Your task to perform on an android device: see sites visited before in the chrome app Image 0: 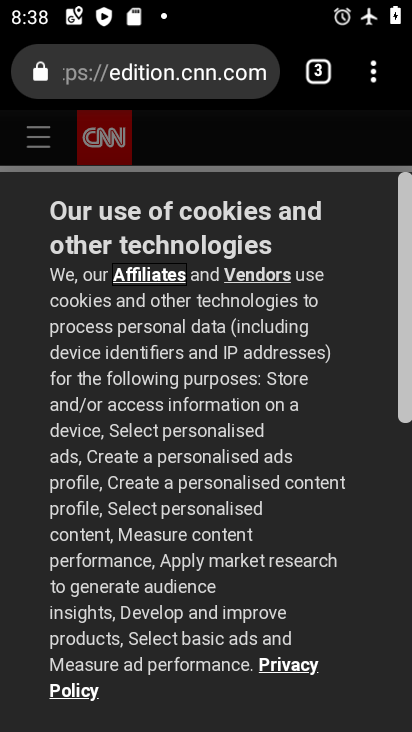
Step 0: press home button
Your task to perform on an android device: see sites visited before in the chrome app Image 1: 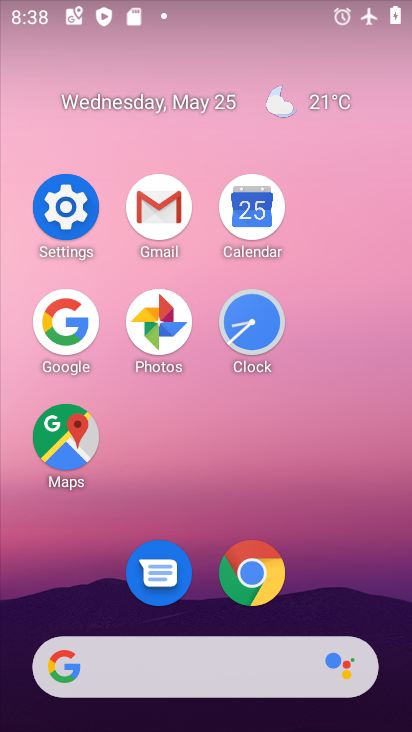
Step 1: click (271, 581)
Your task to perform on an android device: see sites visited before in the chrome app Image 2: 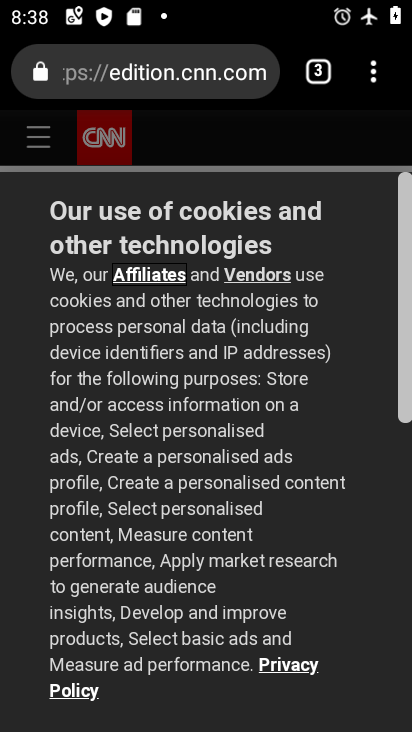
Step 2: click (378, 83)
Your task to perform on an android device: see sites visited before in the chrome app Image 3: 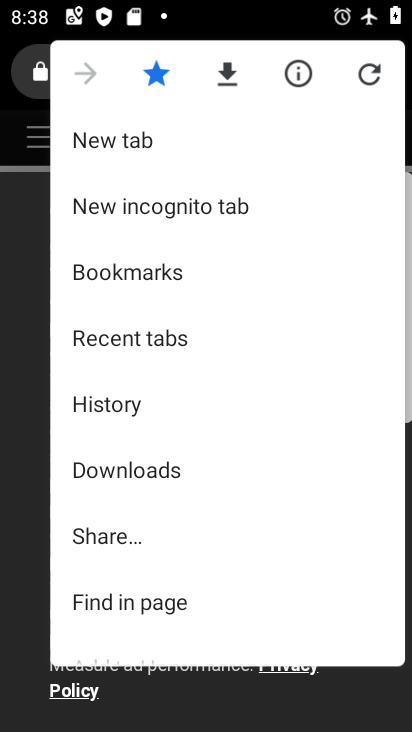
Step 3: drag from (193, 452) to (239, 244)
Your task to perform on an android device: see sites visited before in the chrome app Image 4: 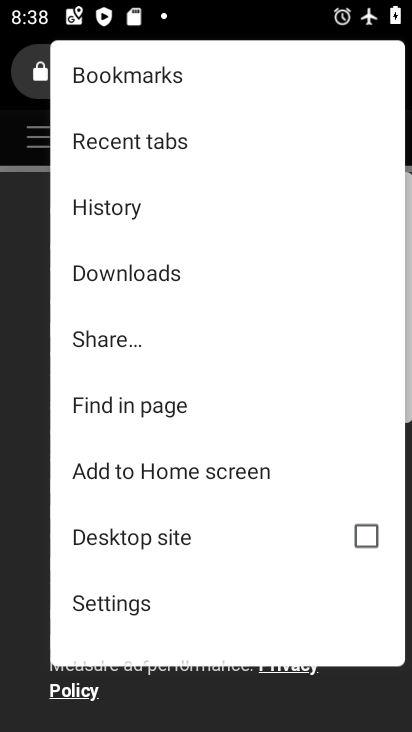
Step 4: click (219, 165)
Your task to perform on an android device: see sites visited before in the chrome app Image 5: 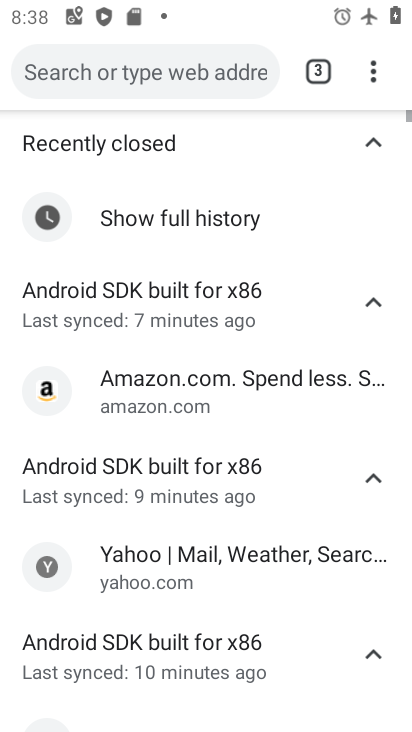
Step 5: click (116, 136)
Your task to perform on an android device: see sites visited before in the chrome app Image 6: 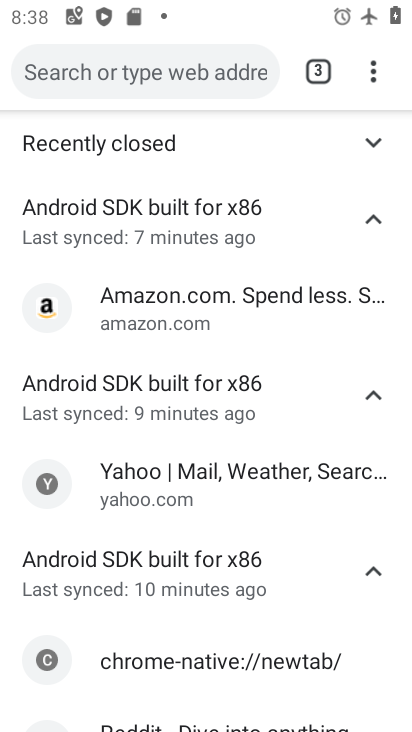
Step 6: click (116, 136)
Your task to perform on an android device: see sites visited before in the chrome app Image 7: 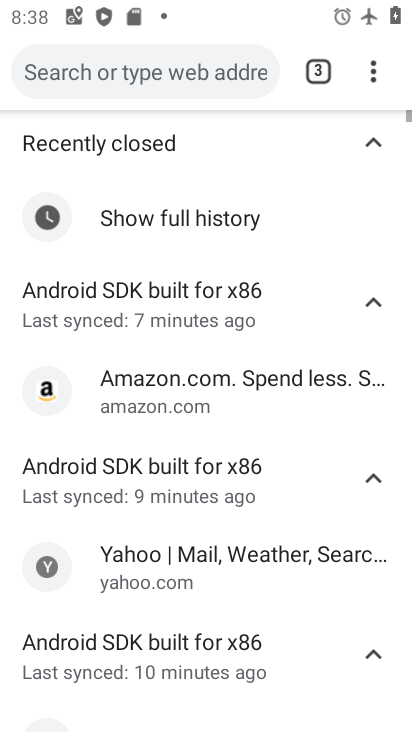
Step 7: click (128, 215)
Your task to perform on an android device: see sites visited before in the chrome app Image 8: 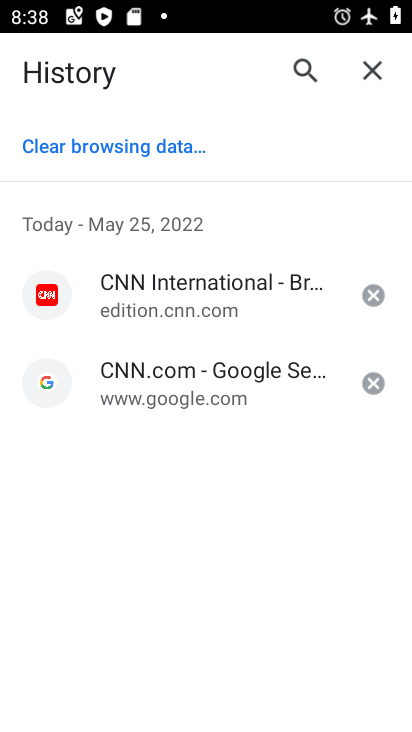
Step 8: task complete